Your task to perform on an android device: Go to internet settings Image 0: 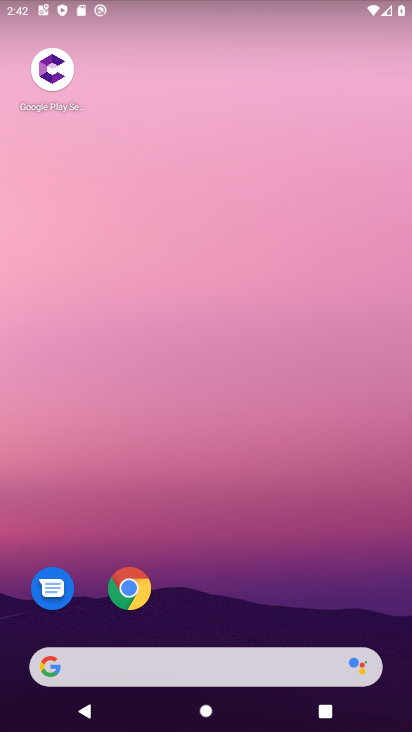
Step 0: drag from (230, 724) to (198, 143)
Your task to perform on an android device: Go to internet settings Image 1: 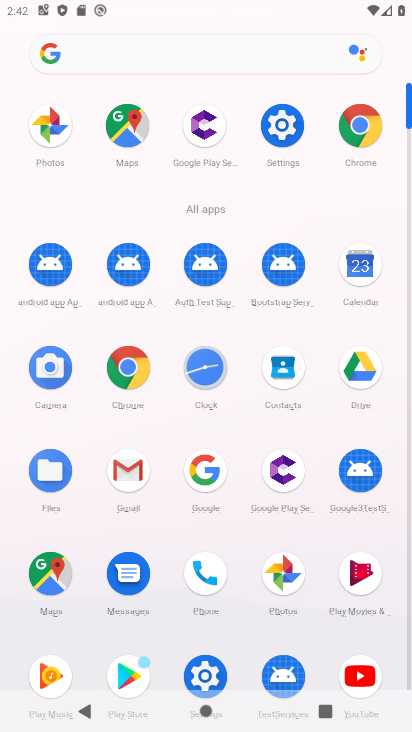
Step 1: click (205, 669)
Your task to perform on an android device: Go to internet settings Image 2: 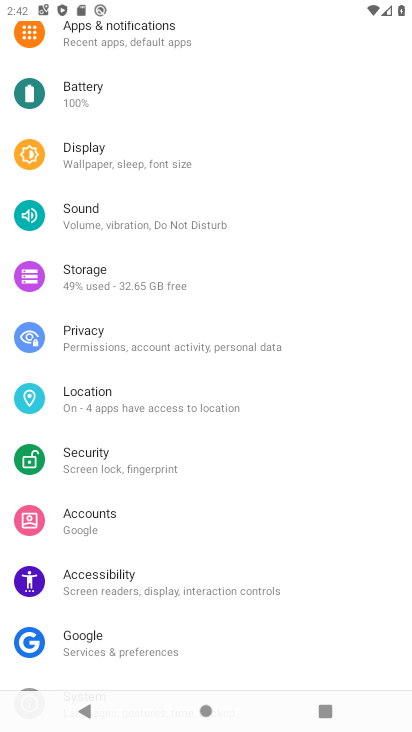
Step 2: drag from (214, 110) to (238, 528)
Your task to perform on an android device: Go to internet settings Image 3: 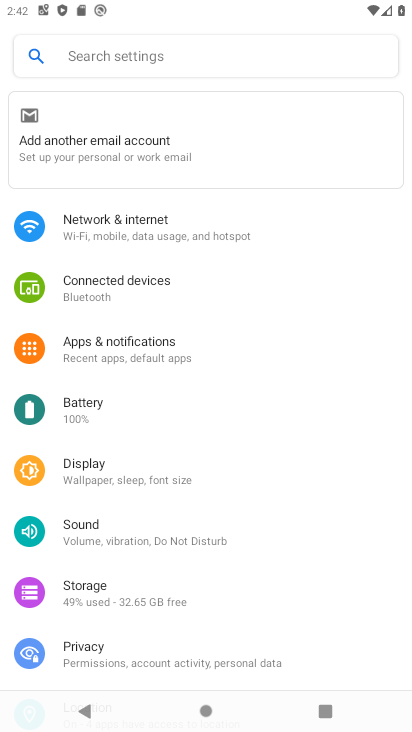
Step 3: click (138, 229)
Your task to perform on an android device: Go to internet settings Image 4: 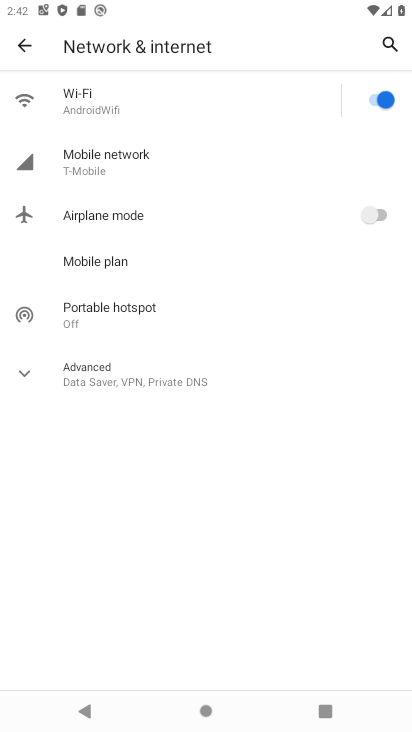
Step 4: task complete